Your task to perform on an android device: toggle priority inbox in the gmail app Image 0: 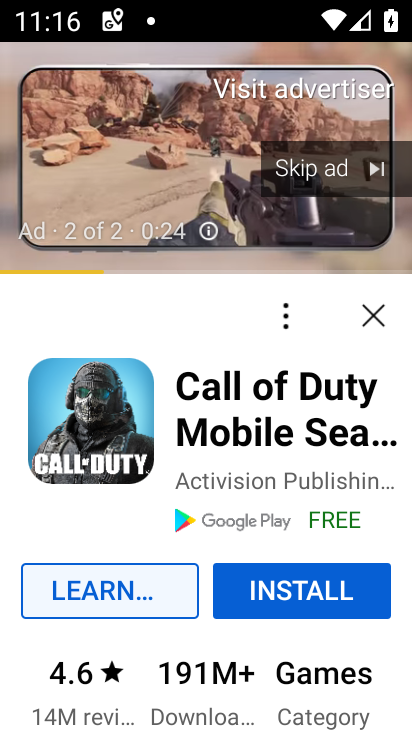
Step 0: click (166, 188)
Your task to perform on an android device: toggle priority inbox in the gmail app Image 1: 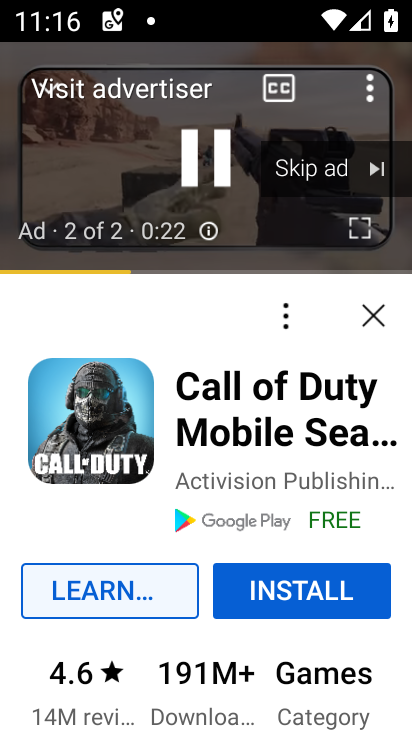
Step 1: click (216, 162)
Your task to perform on an android device: toggle priority inbox in the gmail app Image 2: 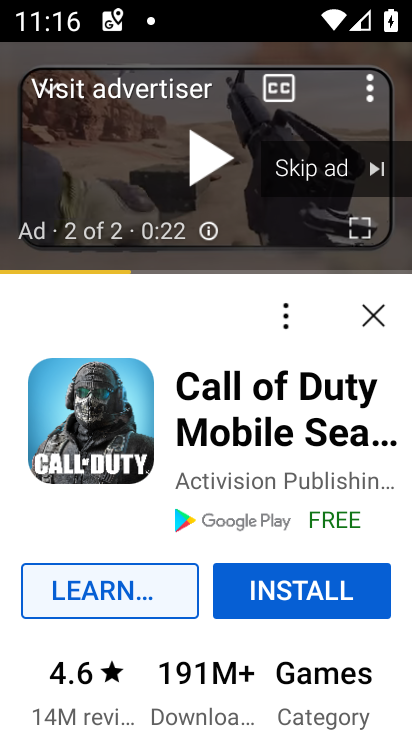
Step 2: press home button
Your task to perform on an android device: toggle priority inbox in the gmail app Image 3: 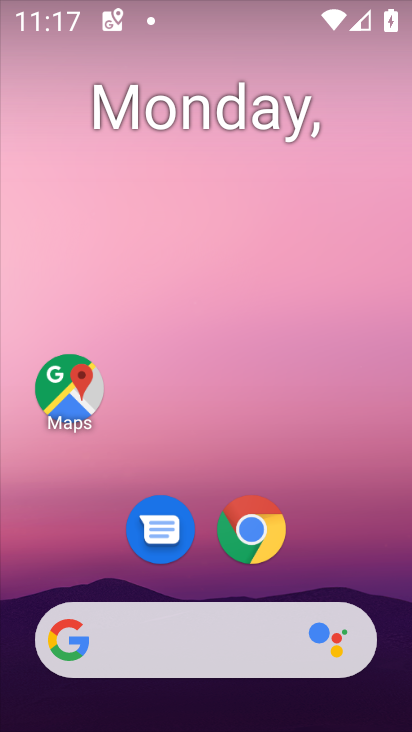
Step 3: drag from (236, 673) to (150, 246)
Your task to perform on an android device: toggle priority inbox in the gmail app Image 4: 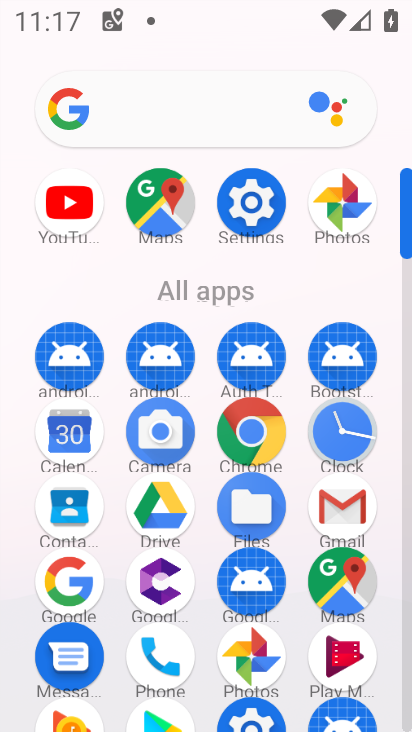
Step 4: click (348, 511)
Your task to perform on an android device: toggle priority inbox in the gmail app Image 5: 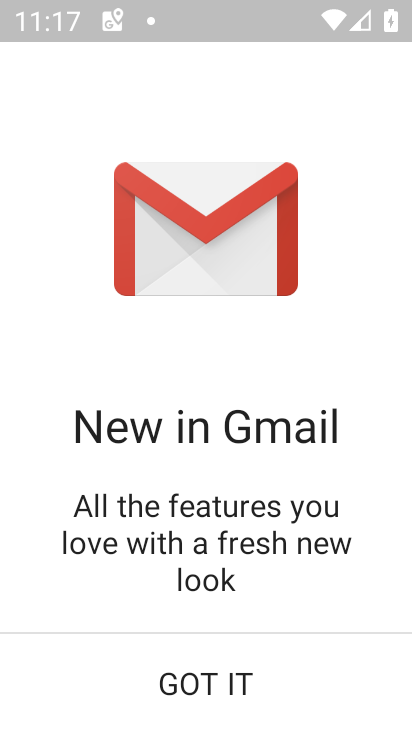
Step 5: click (211, 689)
Your task to perform on an android device: toggle priority inbox in the gmail app Image 6: 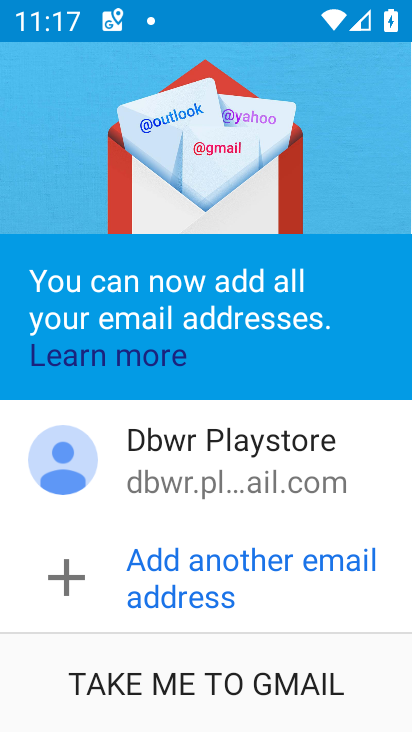
Step 6: click (196, 672)
Your task to perform on an android device: toggle priority inbox in the gmail app Image 7: 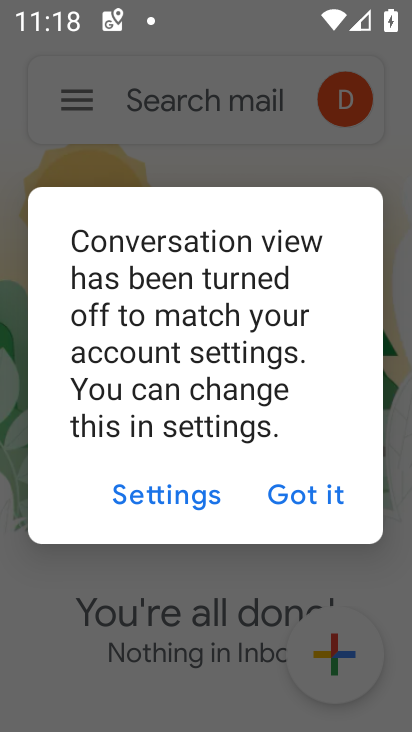
Step 7: click (301, 500)
Your task to perform on an android device: toggle priority inbox in the gmail app Image 8: 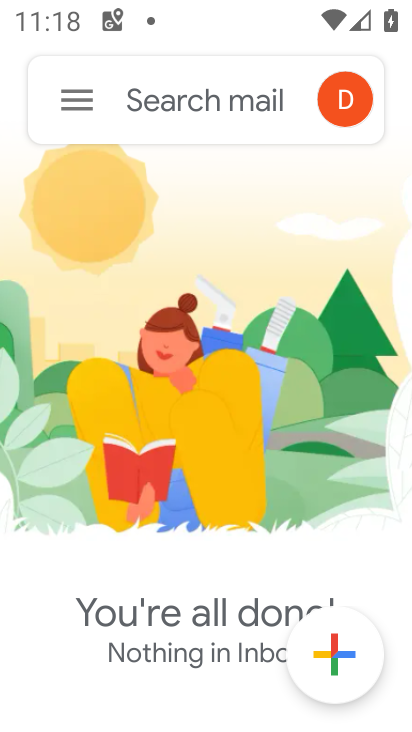
Step 8: click (75, 98)
Your task to perform on an android device: toggle priority inbox in the gmail app Image 9: 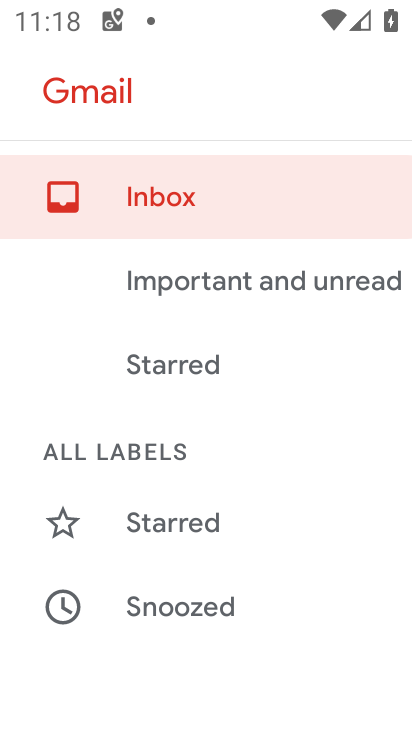
Step 9: drag from (260, 588) to (285, 323)
Your task to perform on an android device: toggle priority inbox in the gmail app Image 10: 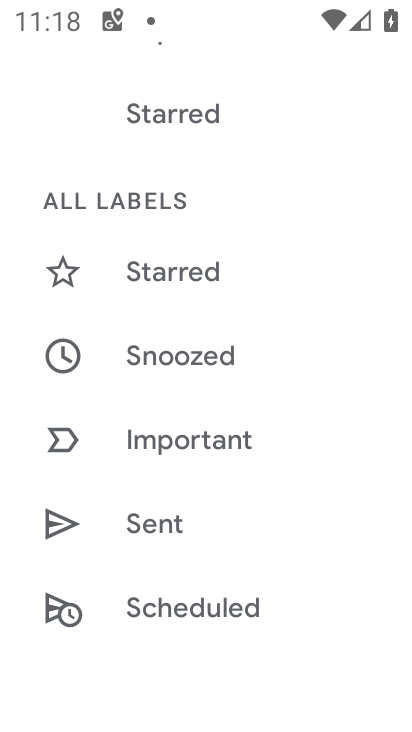
Step 10: drag from (203, 597) to (229, 446)
Your task to perform on an android device: toggle priority inbox in the gmail app Image 11: 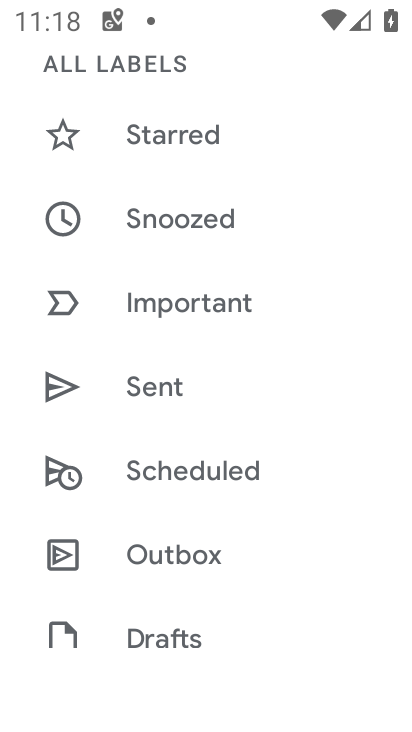
Step 11: drag from (185, 604) to (227, 395)
Your task to perform on an android device: toggle priority inbox in the gmail app Image 12: 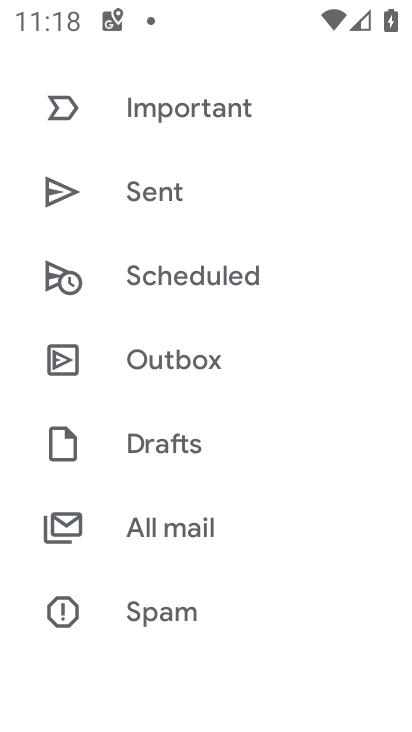
Step 12: drag from (172, 663) to (228, 500)
Your task to perform on an android device: toggle priority inbox in the gmail app Image 13: 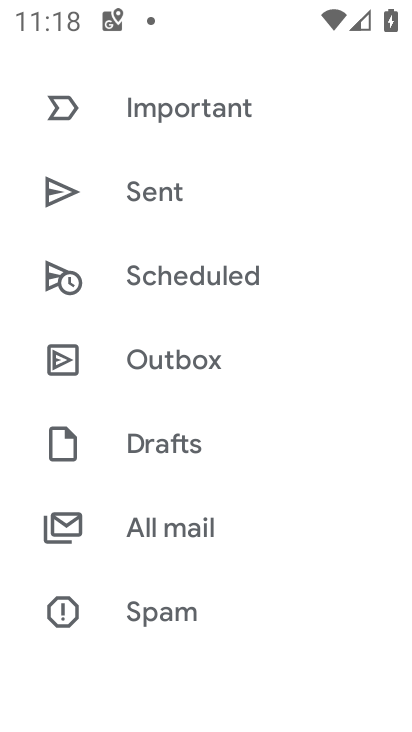
Step 13: drag from (176, 559) to (200, 341)
Your task to perform on an android device: toggle priority inbox in the gmail app Image 14: 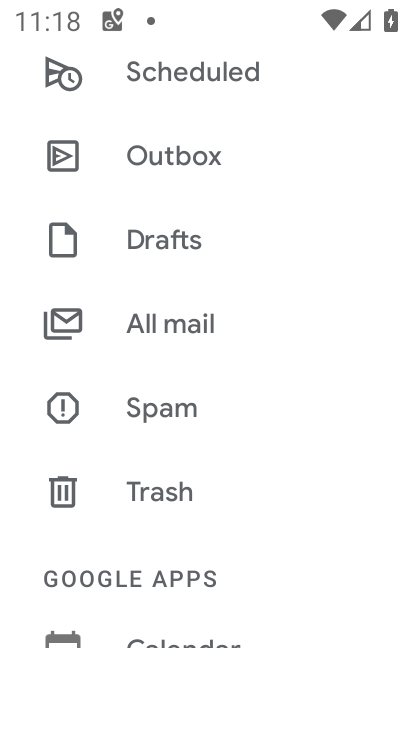
Step 14: drag from (185, 464) to (229, 281)
Your task to perform on an android device: toggle priority inbox in the gmail app Image 15: 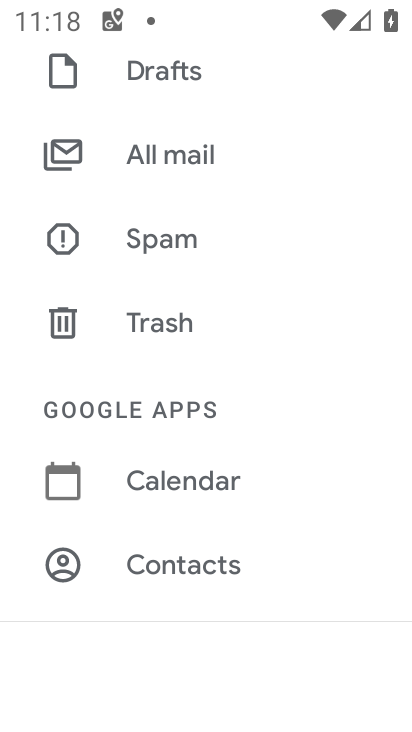
Step 15: drag from (126, 594) to (151, 493)
Your task to perform on an android device: toggle priority inbox in the gmail app Image 16: 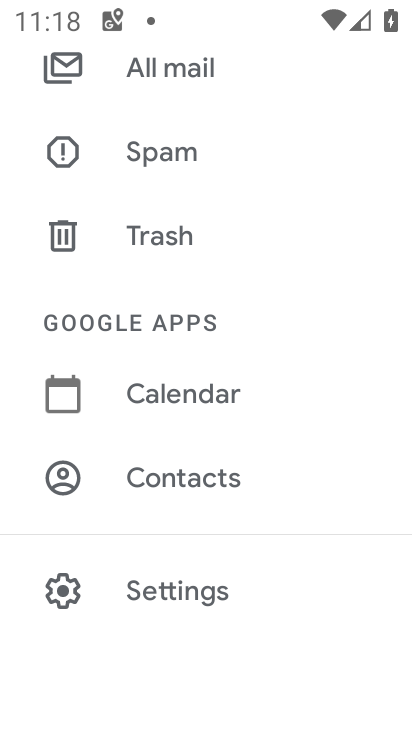
Step 16: click (154, 583)
Your task to perform on an android device: toggle priority inbox in the gmail app Image 17: 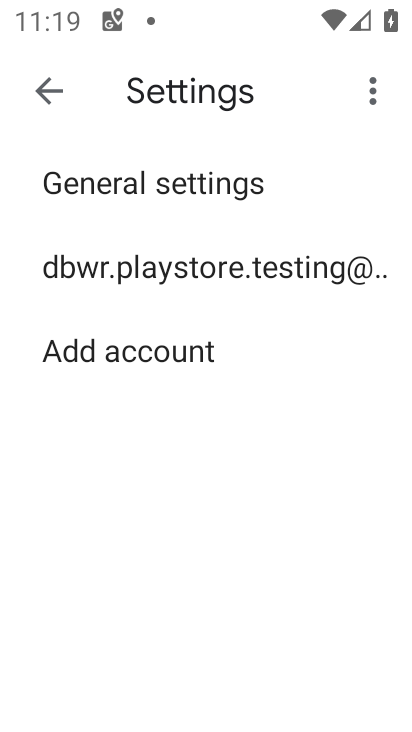
Step 17: click (227, 266)
Your task to perform on an android device: toggle priority inbox in the gmail app Image 18: 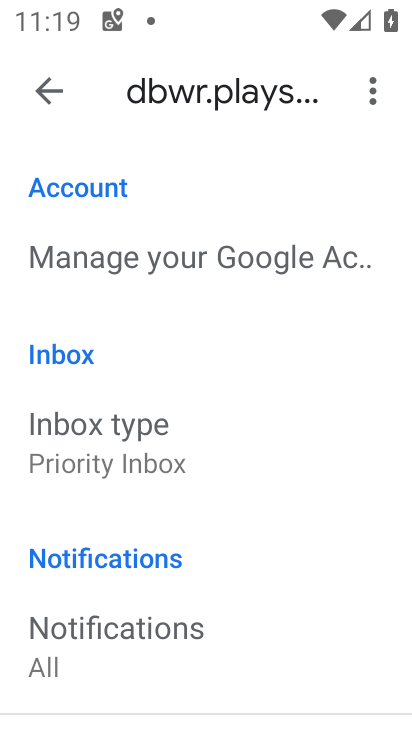
Step 18: click (98, 465)
Your task to perform on an android device: toggle priority inbox in the gmail app Image 19: 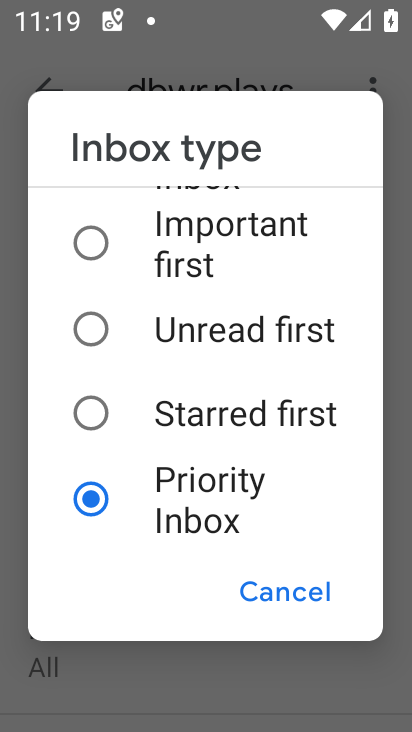
Step 19: task complete